Your task to perform on an android device: add a contact in the contacts app Image 0: 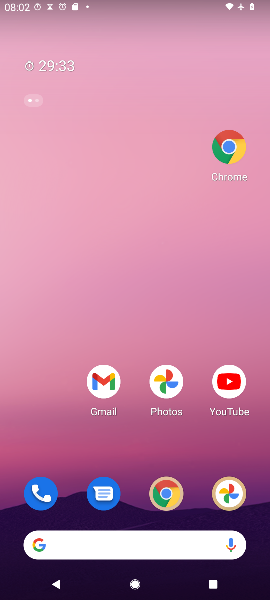
Step 0: press home button
Your task to perform on an android device: add a contact in the contacts app Image 1: 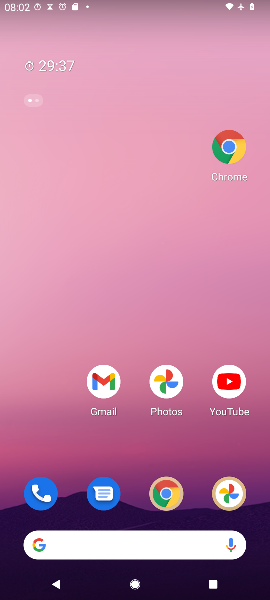
Step 1: drag from (133, 508) to (102, 131)
Your task to perform on an android device: add a contact in the contacts app Image 2: 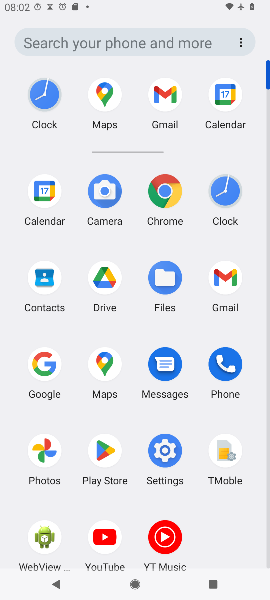
Step 2: click (46, 284)
Your task to perform on an android device: add a contact in the contacts app Image 3: 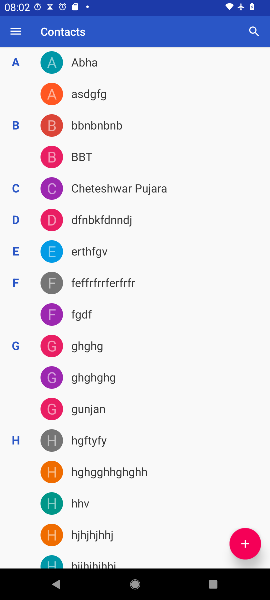
Step 3: click (246, 547)
Your task to perform on an android device: add a contact in the contacts app Image 4: 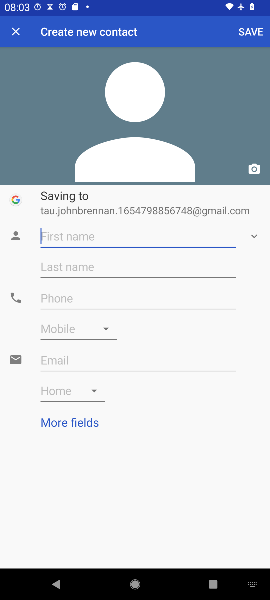
Step 4: type "mmnmnm"
Your task to perform on an android device: add a contact in the contacts app Image 5: 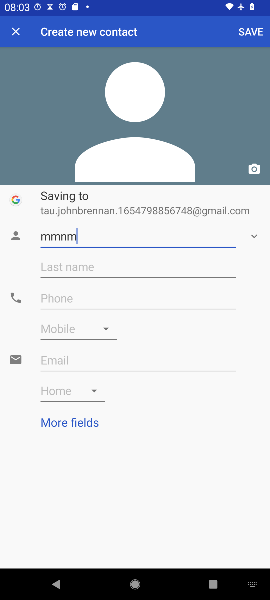
Step 5: press enter
Your task to perform on an android device: add a contact in the contacts app Image 6: 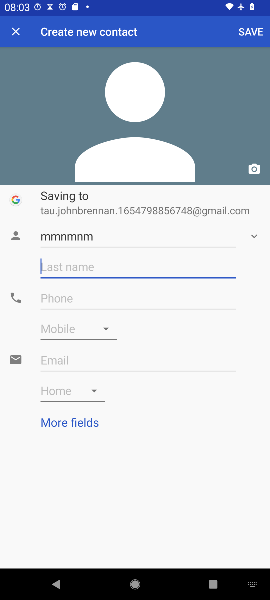
Step 6: click (62, 301)
Your task to perform on an android device: add a contact in the contacts app Image 7: 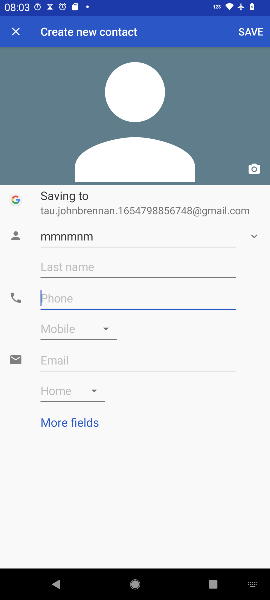
Step 7: type "6767878"
Your task to perform on an android device: add a contact in the contacts app Image 8: 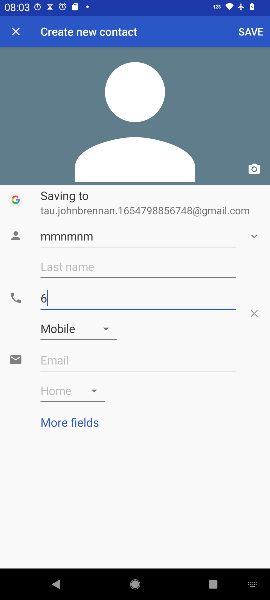
Step 8: press enter
Your task to perform on an android device: add a contact in the contacts app Image 9: 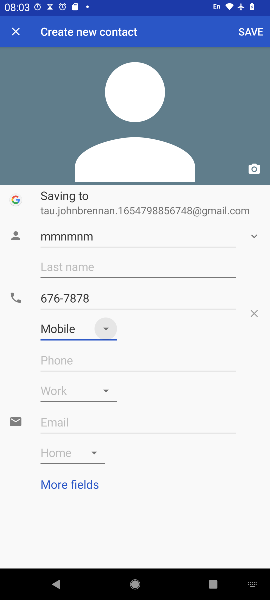
Step 9: click (249, 31)
Your task to perform on an android device: add a contact in the contacts app Image 10: 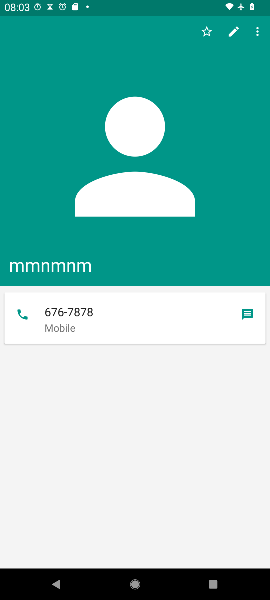
Step 10: task complete